Your task to perform on an android device: Open the stopwatch Image 0: 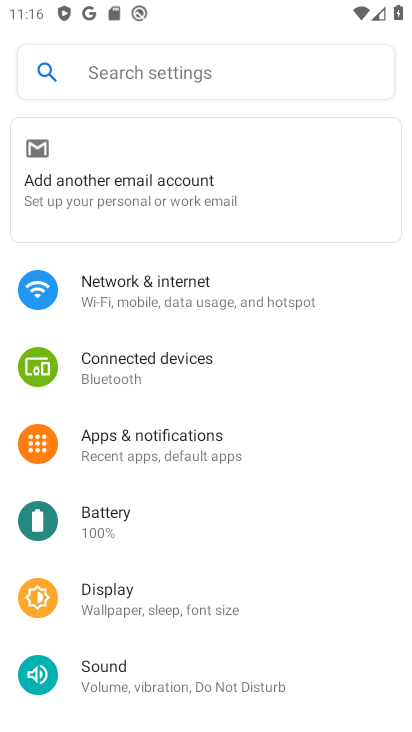
Step 0: press home button
Your task to perform on an android device: Open the stopwatch Image 1: 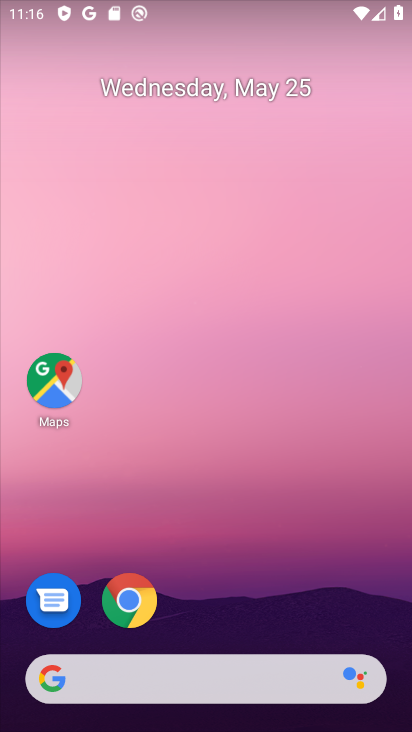
Step 1: drag from (217, 583) to (316, 3)
Your task to perform on an android device: Open the stopwatch Image 2: 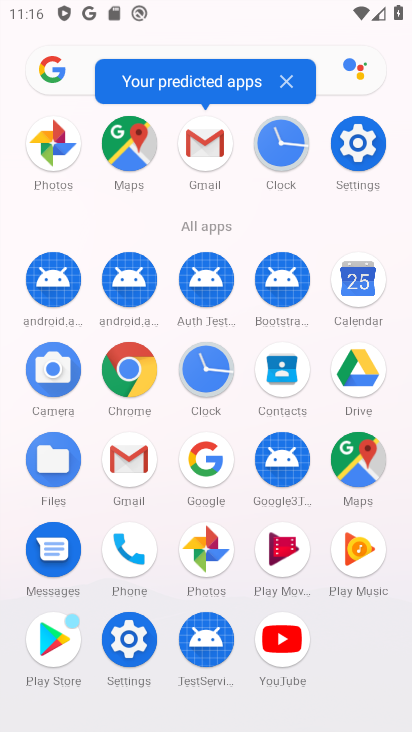
Step 2: click (200, 377)
Your task to perform on an android device: Open the stopwatch Image 3: 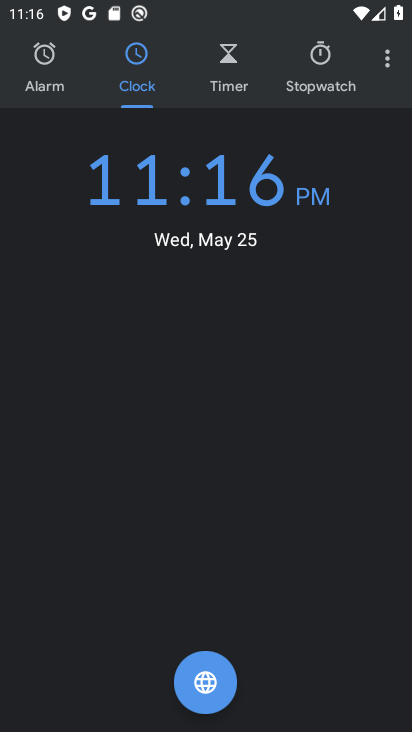
Step 3: click (315, 47)
Your task to perform on an android device: Open the stopwatch Image 4: 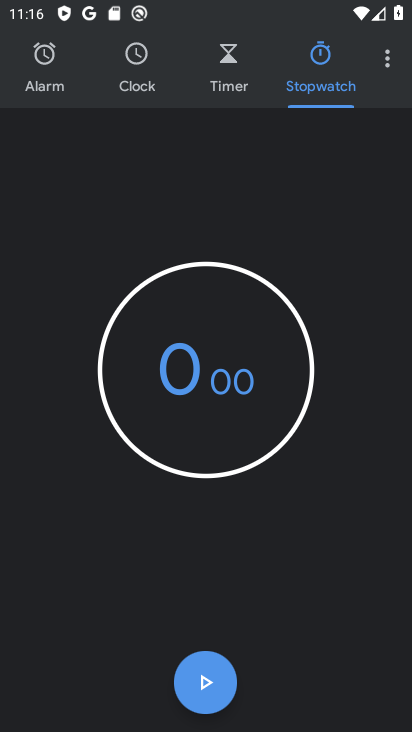
Step 4: click (212, 684)
Your task to perform on an android device: Open the stopwatch Image 5: 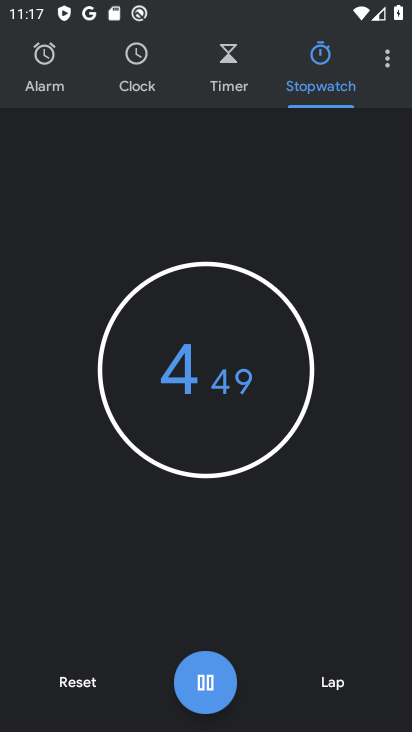
Step 5: task complete